Your task to perform on an android device: Go to Amazon Image 0: 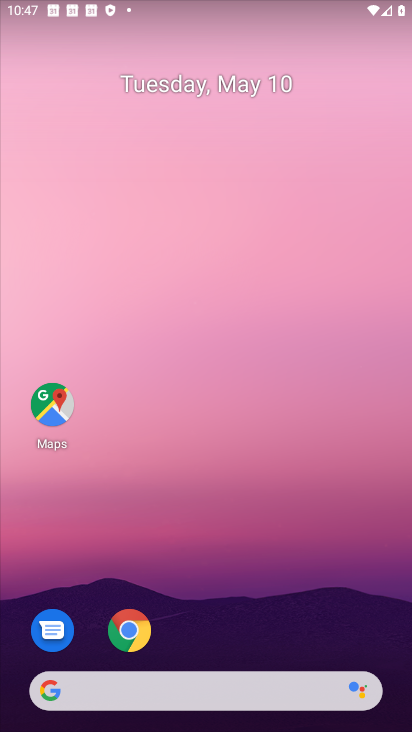
Step 0: click (293, 700)
Your task to perform on an android device: Go to Amazon Image 1: 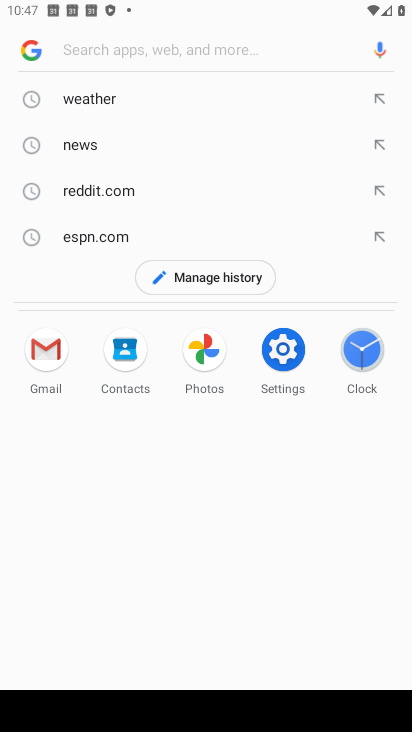
Step 1: type "amazon.com"
Your task to perform on an android device: Go to Amazon Image 2: 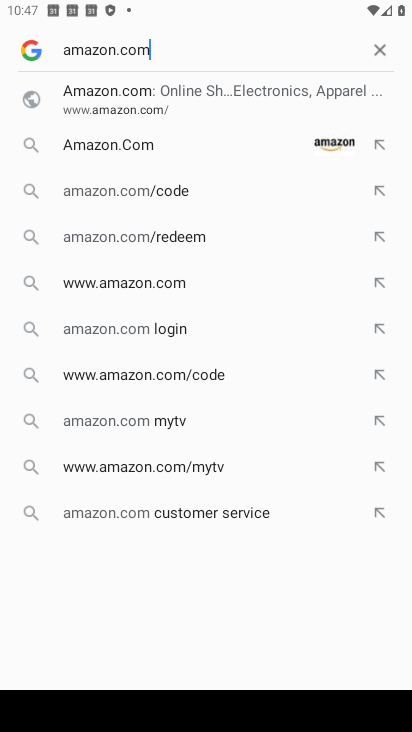
Step 2: click (195, 102)
Your task to perform on an android device: Go to Amazon Image 3: 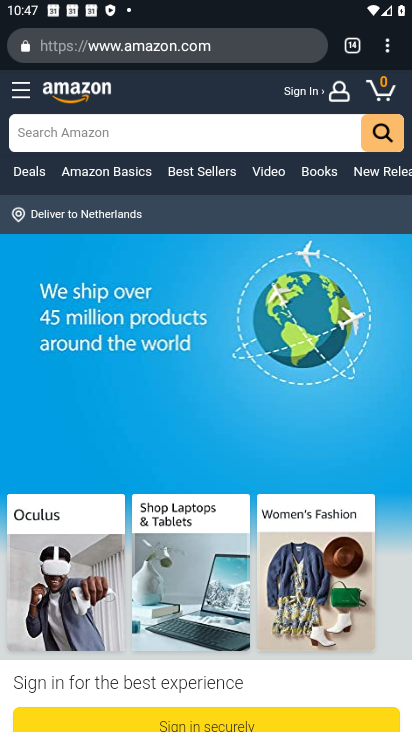
Step 3: task complete